Your task to perform on an android device: Add "logitech g pro" to the cart on walmart.com, then select checkout. Image 0: 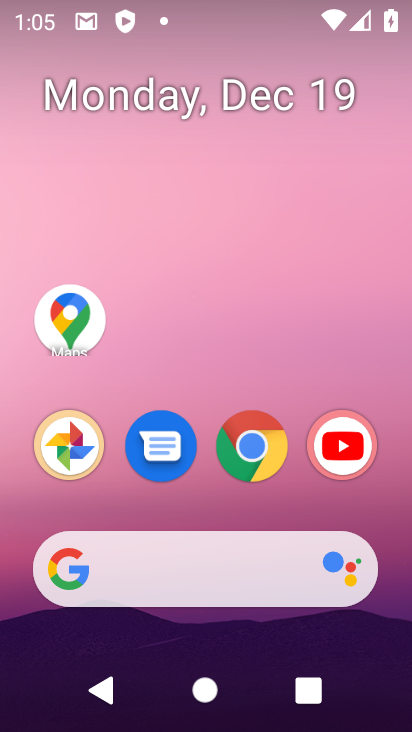
Step 0: click (270, 564)
Your task to perform on an android device: Add "logitech g pro" to the cart on walmart.com, then select checkout. Image 1: 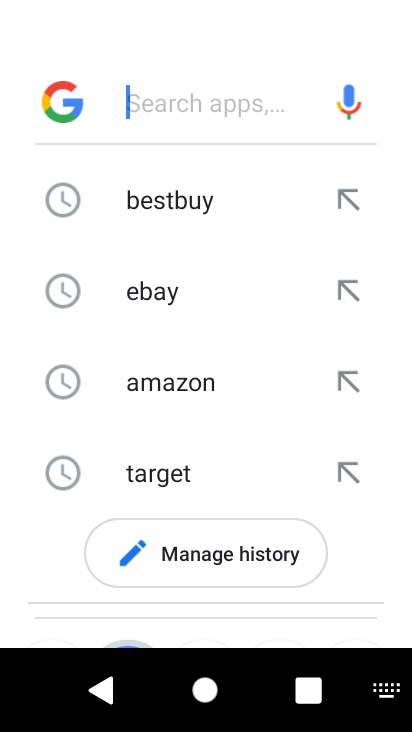
Step 1: type "walmart"
Your task to perform on an android device: Add "logitech g pro" to the cart on walmart.com, then select checkout. Image 2: 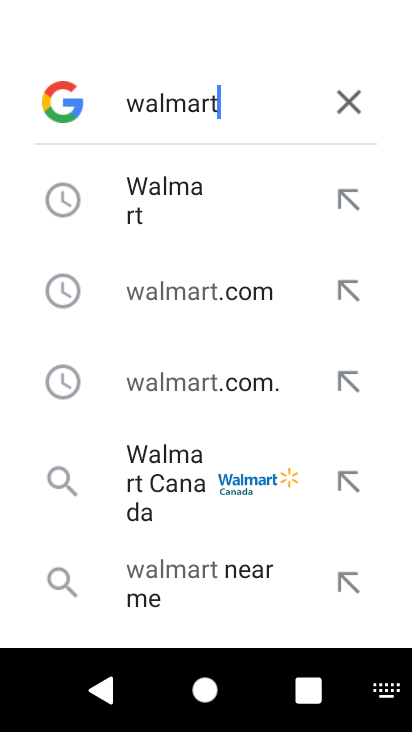
Step 2: click (155, 180)
Your task to perform on an android device: Add "logitech g pro" to the cart on walmart.com, then select checkout. Image 3: 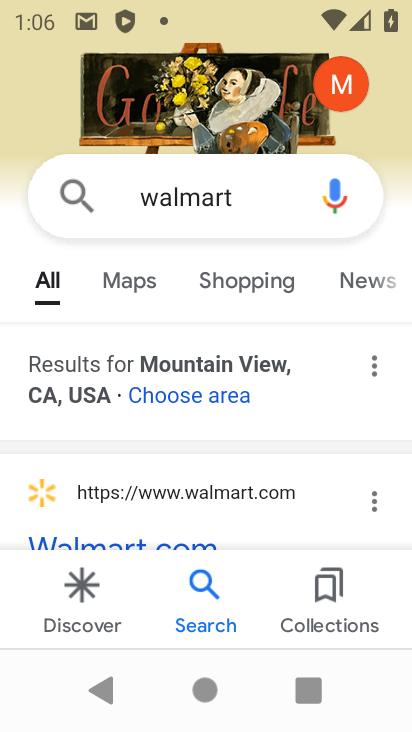
Step 3: task complete